Your task to perform on an android device: Do I have any events today? Image 0: 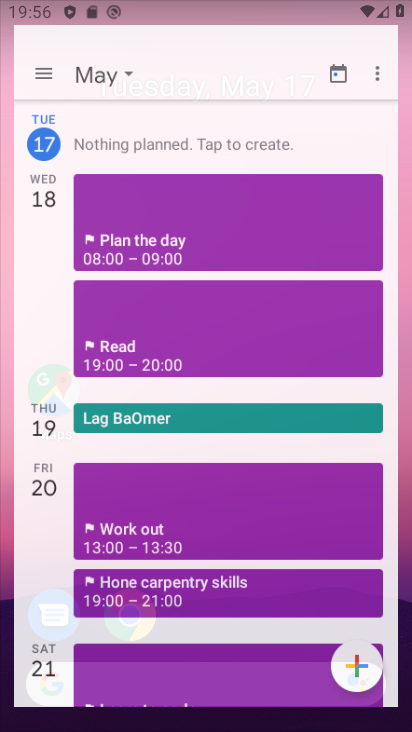
Step 0: drag from (236, 528) to (265, 135)
Your task to perform on an android device: Do I have any events today? Image 1: 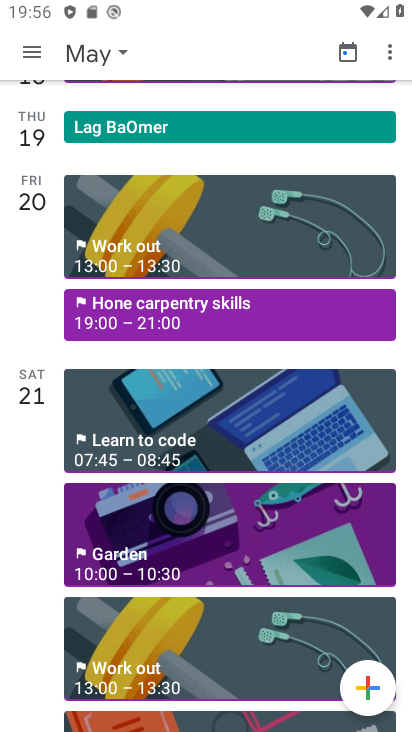
Step 1: press back button
Your task to perform on an android device: Do I have any events today? Image 2: 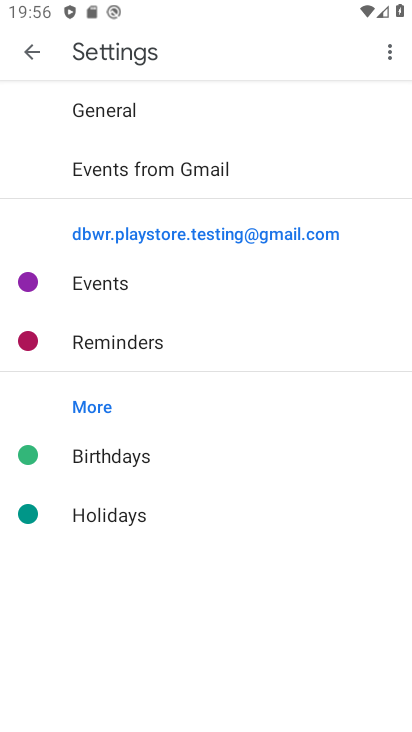
Step 2: press back button
Your task to perform on an android device: Do I have any events today? Image 3: 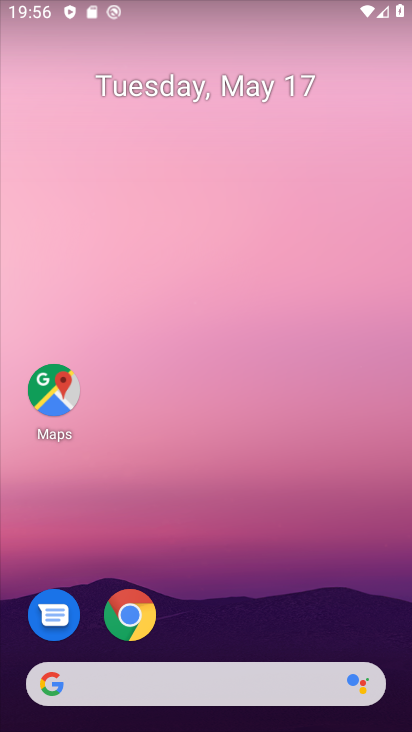
Step 3: drag from (221, 598) to (305, 71)
Your task to perform on an android device: Do I have any events today? Image 4: 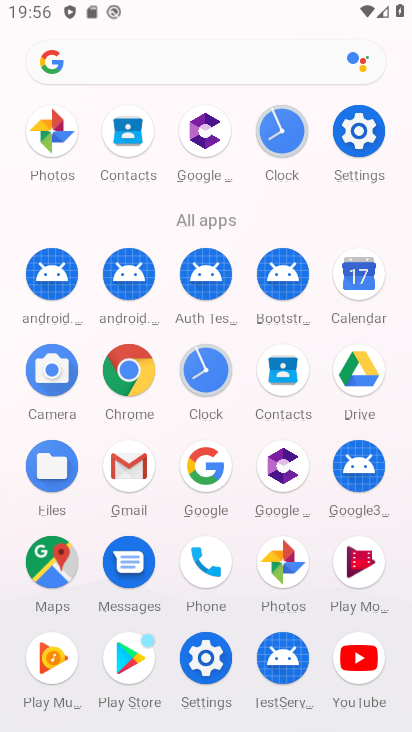
Step 4: click (353, 272)
Your task to perform on an android device: Do I have any events today? Image 5: 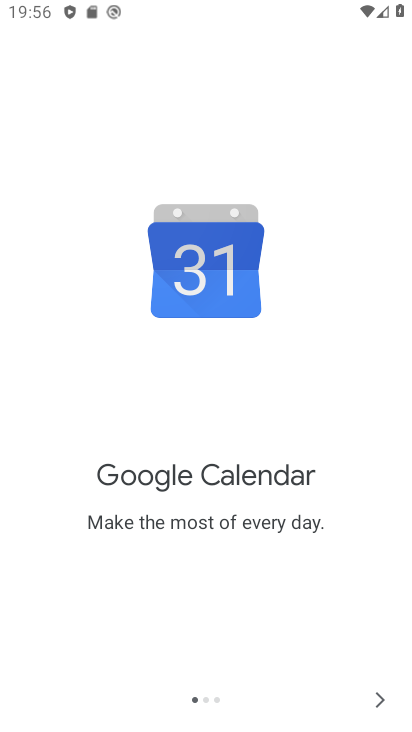
Step 5: click (364, 676)
Your task to perform on an android device: Do I have any events today? Image 6: 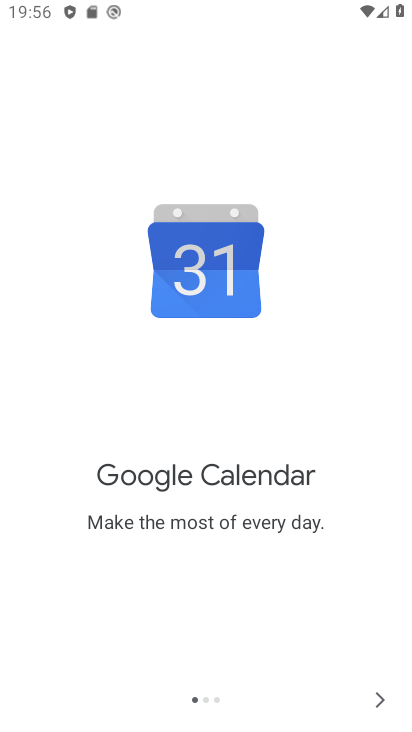
Step 6: click (364, 694)
Your task to perform on an android device: Do I have any events today? Image 7: 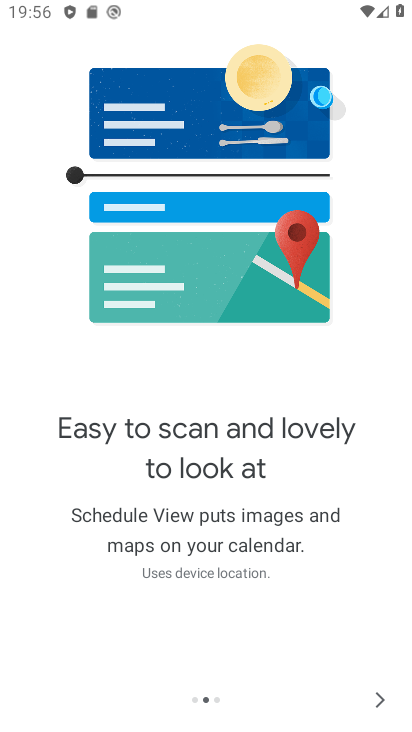
Step 7: click (366, 697)
Your task to perform on an android device: Do I have any events today? Image 8: 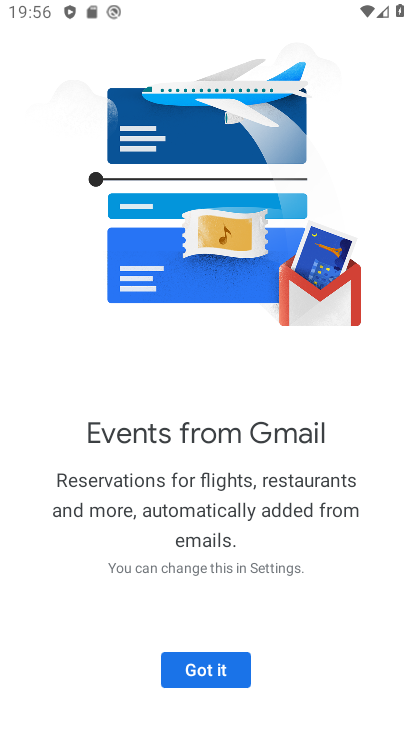
Step 8: click (242, 669)
Your task to perform on an android device: Do I have any events today? Image 9: 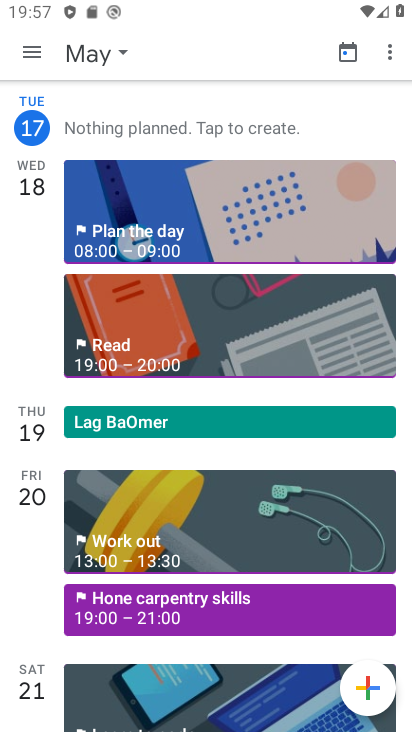
Step 9: click (132, 213)
Your task to perform on an android device: Do I have any events today? Image 10: 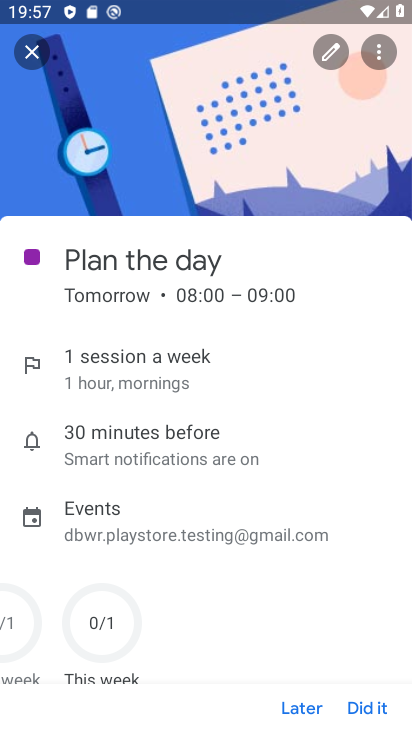
Step 10: task complete